Your task to perform on an android device: Go to Maps Image 0: 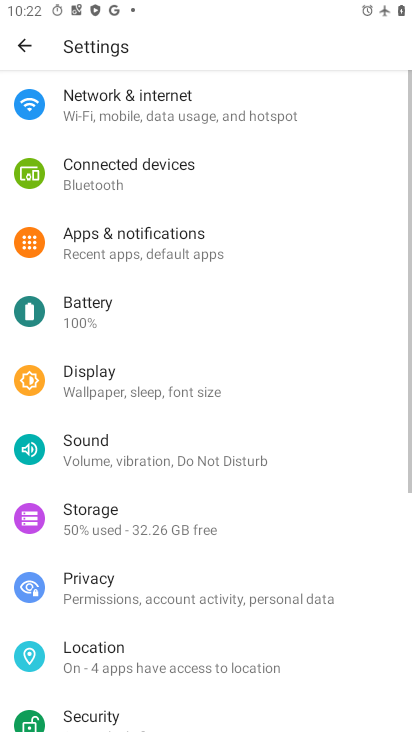
Step 0: press home button
Your task to perform on an android device: Go to Maps Image 1: 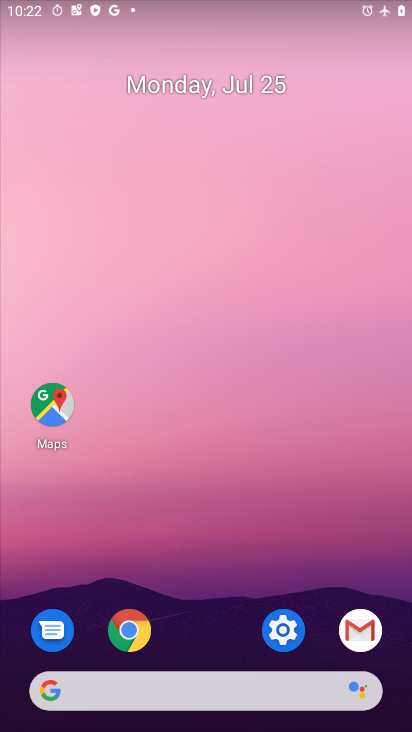
Step 1: click (63, 404)
Your task to perform on an android device: Go to Maps Image 2: 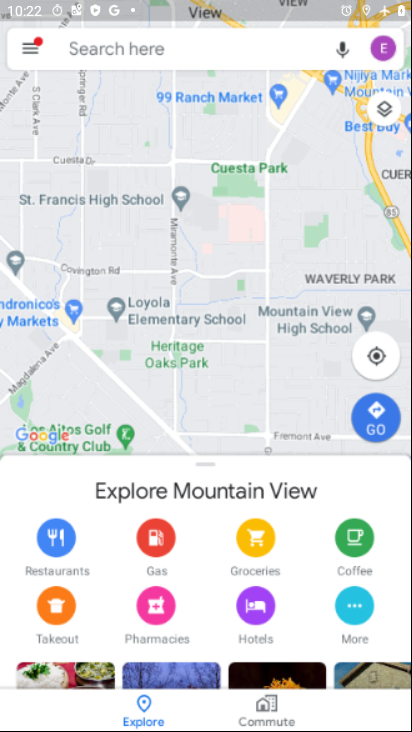
Step 2: click (380, 352)
Your task to perform on an android device: Go to Maps Image 3: 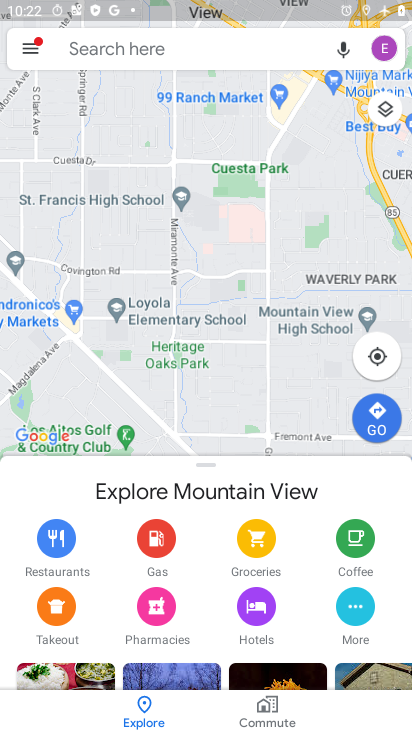
Step 3: task complete